Your task to perform on an android device: turn on location history Image 0: 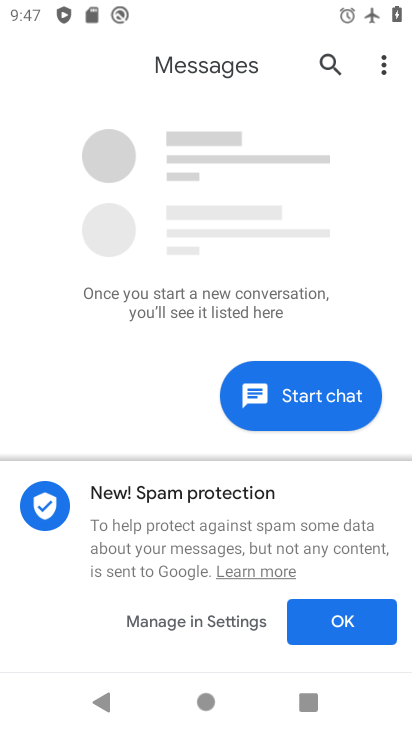
Step 0: press home button
Your task to perform on an android device: turn on location history Image 1: 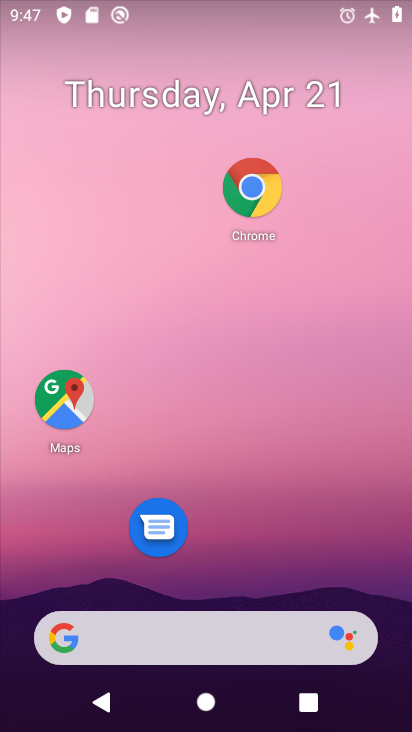
Step 1: drag from (261, 495) to (279, 41)
Your task to perform on an android device: turn on location history Image 2: 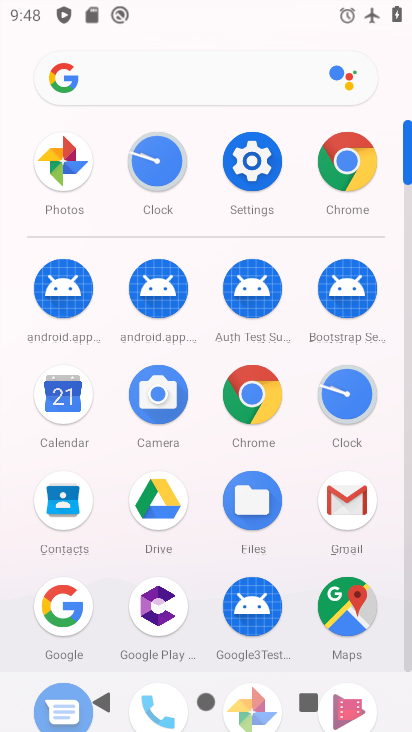
Step 2: click (262, 166)
Your task to perform on an android device: turn on location history Image 3: 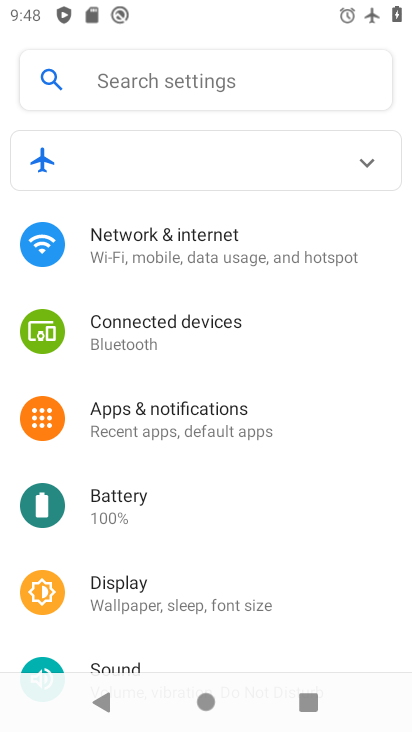
Step 3: drag from (222, 482) to (233, 258)
Your task to perform on an android device: turn on location history Image 4: 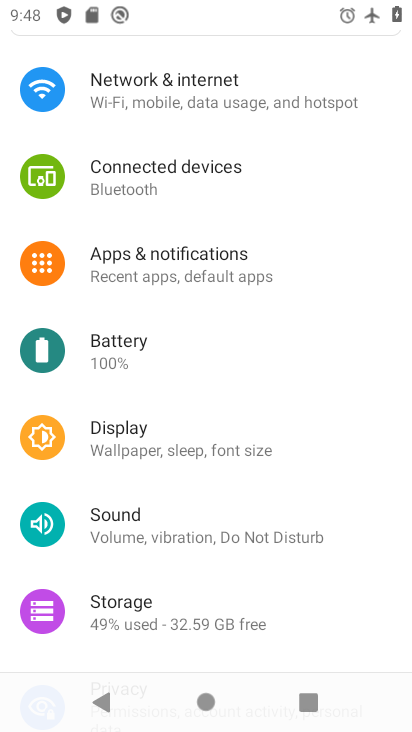
Step 4: drag from (239, 210) to (249, 161)
Your task to perform on an android device: turn on location history Image 5: 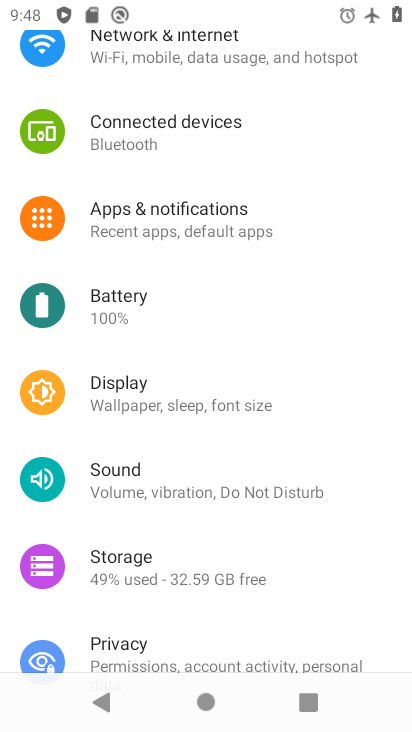
Step 5: drag from (211, 573) to (220, 276)
Your task to perform on an android device: turn on location history Image 6: 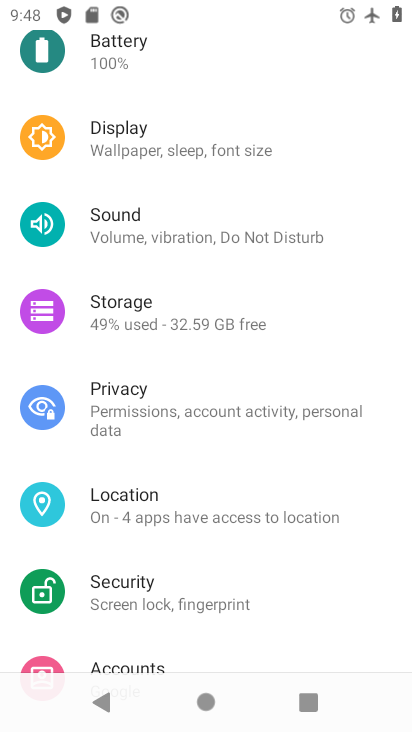
Step 6: click (226, 503)
Your task to perform on an android device: turn on location history Image 7: 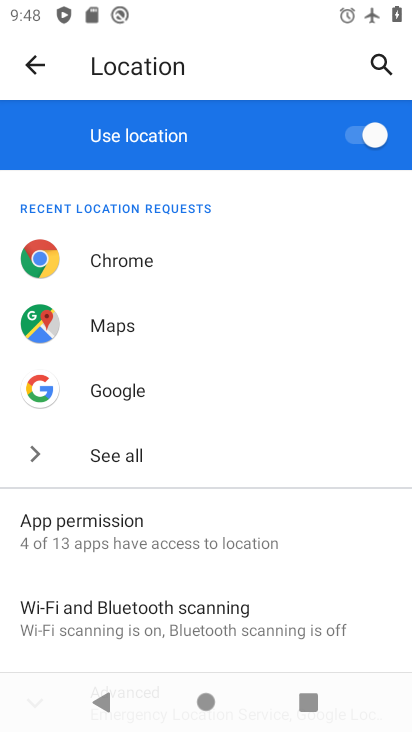
Step 7: drag from (231, 596) to (280, 216)
Your task to perform on an android device: turn on location history Image 8: 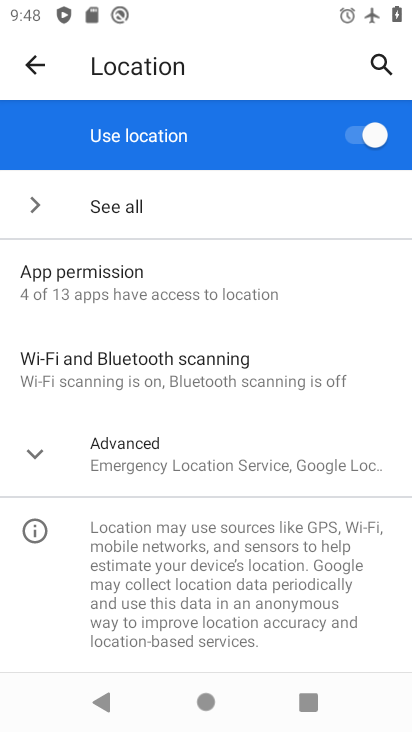
Step 8: click (186, 457)
Your task to perform on an android device: turn on location history Image 9: 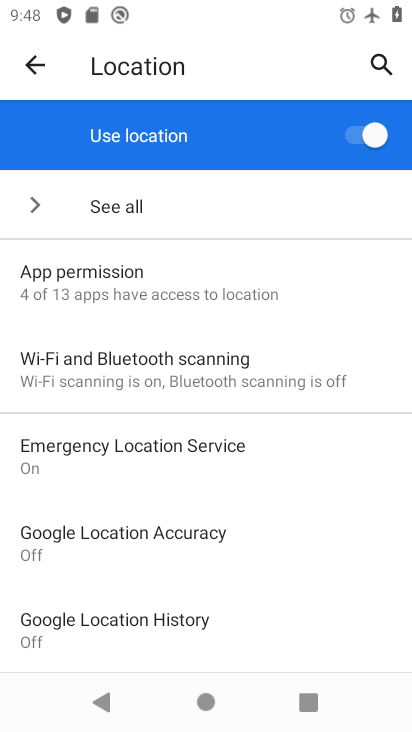
Step 9: click (200, 625)
Your task to perform on an android device: turn on location history Image 10: 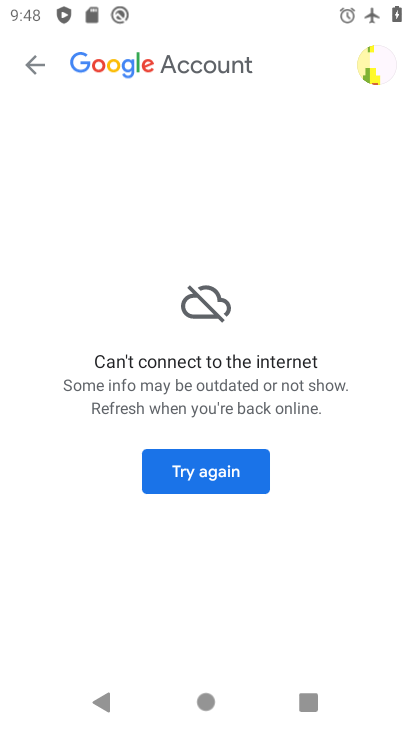
Step 10: task complete